Your task to perform on an android device: What's on my calendar tomorrow? Image 0: 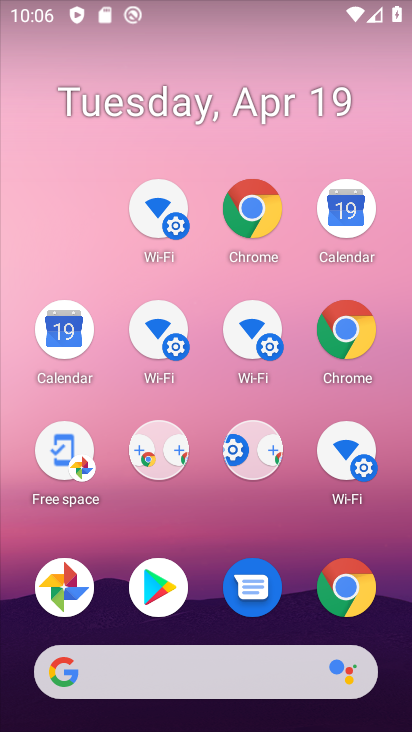
Step 0: click (59, 321)
Your task to perform on an android device: What's on my calendar tomorrow? Image 1: 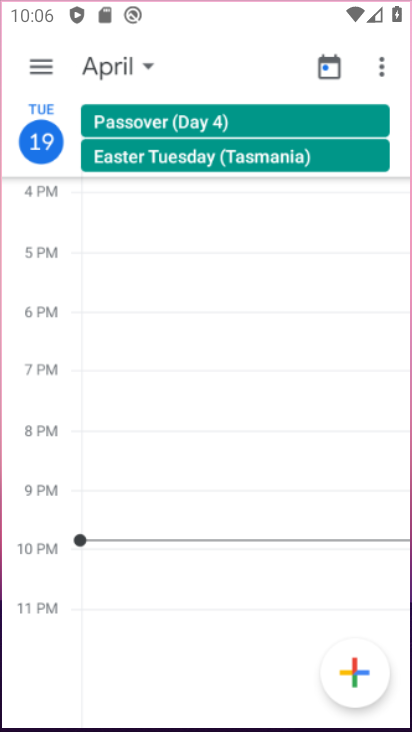
Step 1: click (59, 321)
Your task to perform on an android device: What's on my calendar tomorrow? Image 2: 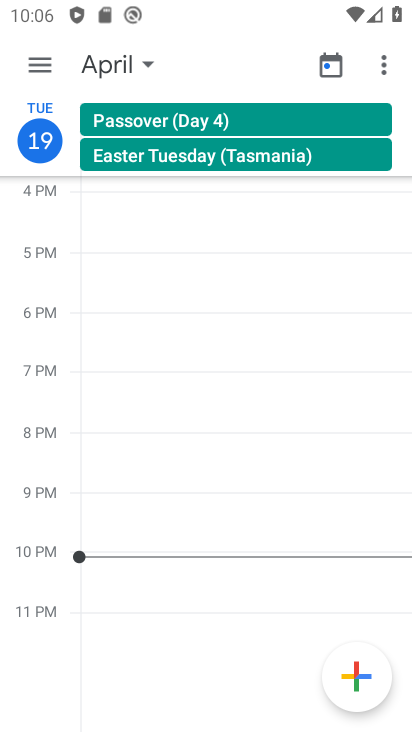
Step 2: click (144, 61)
Your task to perform on an android device: What's on my calendar tomorrow? Image 3: 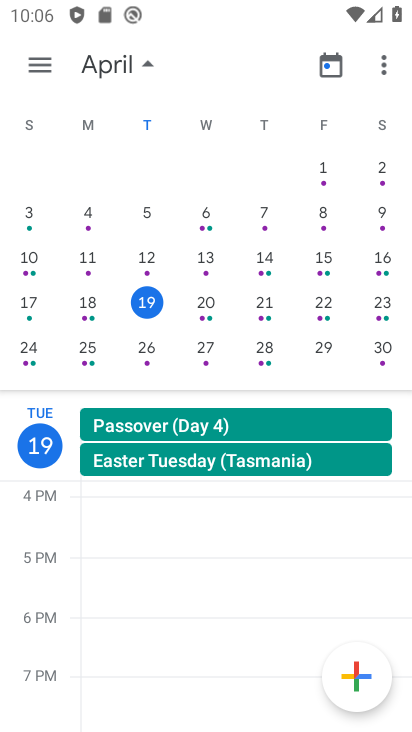
Step 3: click (268, 299)
Your task to perform on an android device: What's on my calendar tomorrow? Image 4: 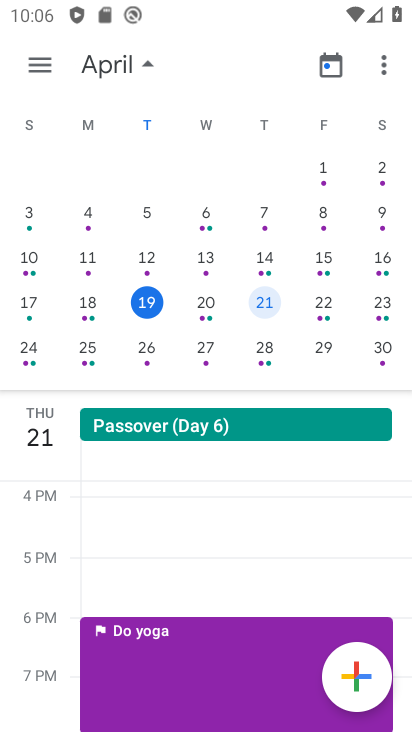
Step 4: click (268, 299)
Your task to perform on an android device: What's on my calendar tomorrow? Image 5: 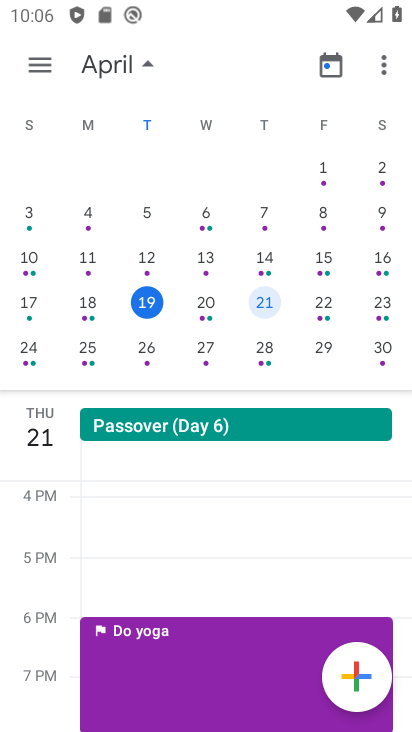
Step 5: click (268, 299)
Your task to perform on an android device: What's on my calendar tomorrow? Image 6: 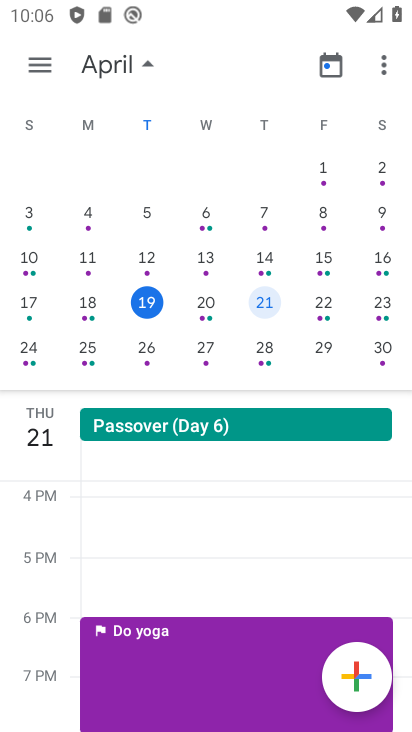
Step 6: click (268, 299)
Your task to perform on an android device: What's on my calendar tomorrow? Image 7: 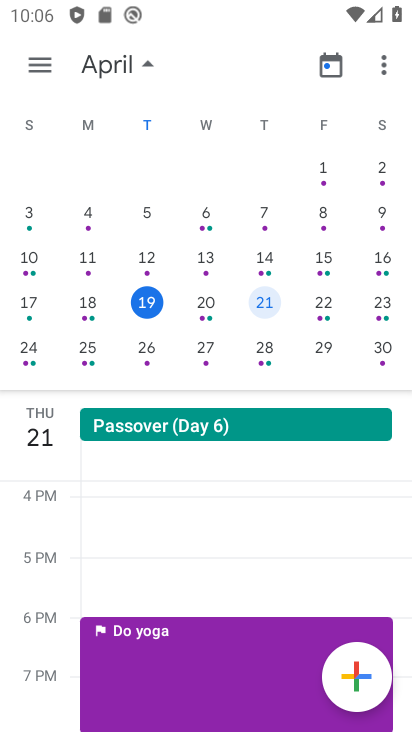
Step 7: click (268, 299)
Your task to perform on an android device: What's on my calendar tomorrow? Image 8: 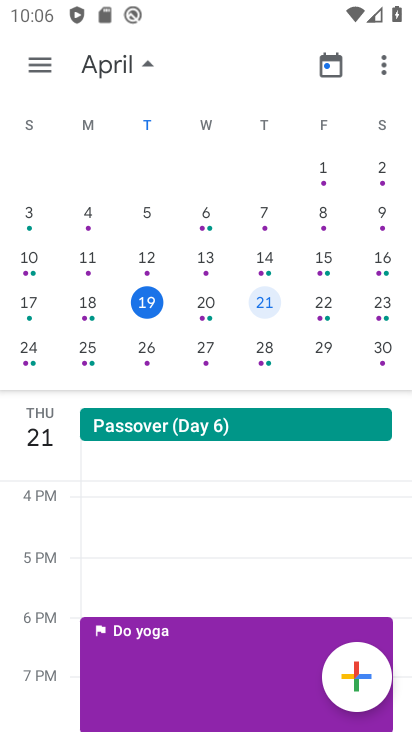
Step 8: click (268, 299)
Your task to perform on an android device: What's on my calendar tomorrow? Image 9: 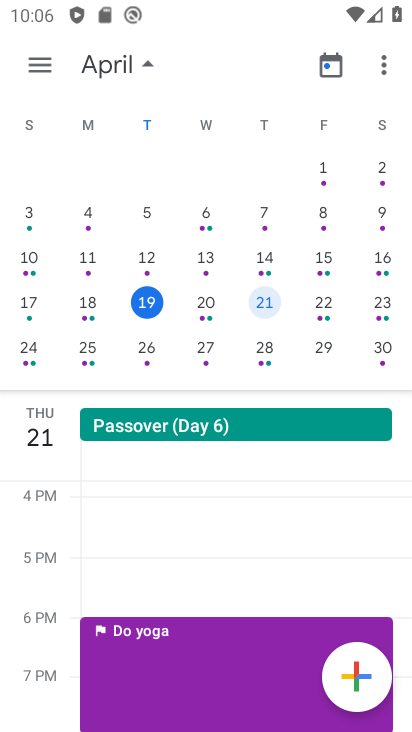
Step 9: click (268, 299)
Your task to perform on an android device: What's on my calendar tomorrow? Image 10: 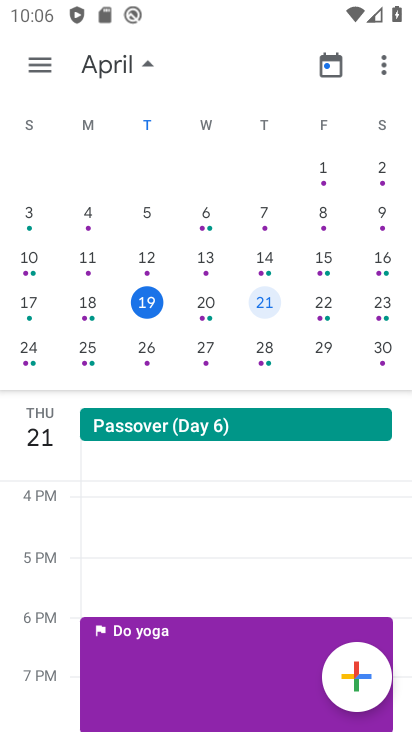
Step 10: task complete